Your task to perform on an android device: View the shopping cart on newegg.com. Add lenovo thinkpad to the cart on newegg.com Image 0: 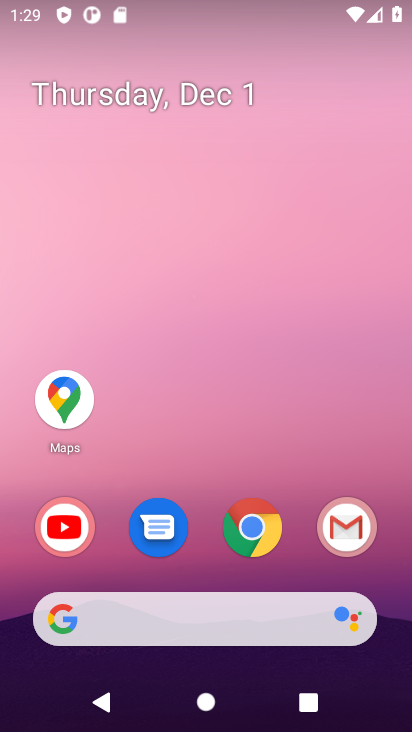
Step 0: click (253, 531)
Your task to perform on an android device: View the shopping cart on newegg.com. Add lenovo thinkpad to the cart on newegg.com Image 1: 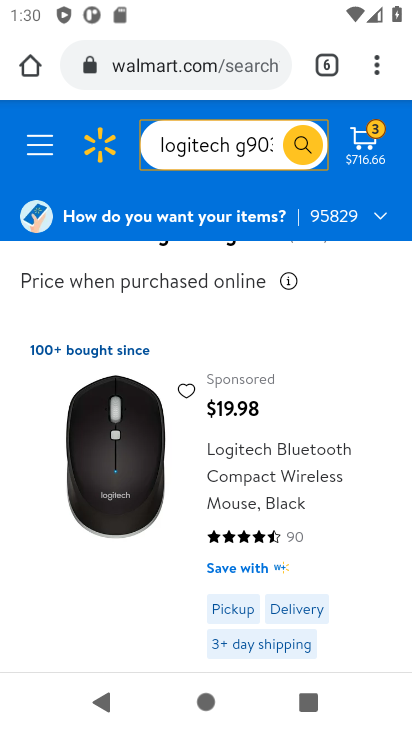
Step 1: click (184, 69)
Your task to perform on an android device: View the shopping cart on newegg.com. Add lenovo thinkpad to the cart on newegg.com Image 2: 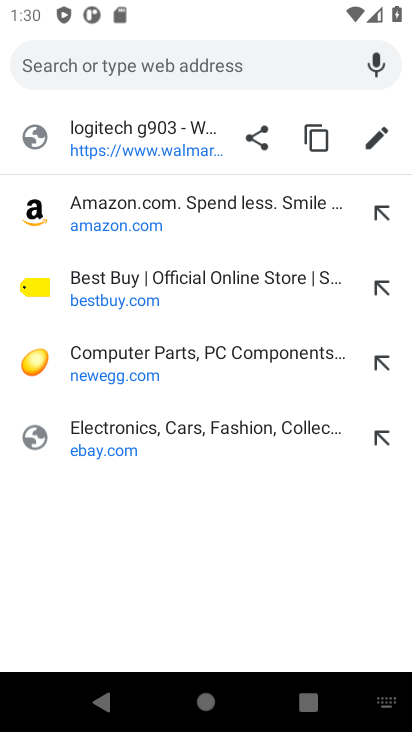
Step 2: click (102, 366)
Your task to perform on an android device: View the shopping cart on newegg.com. Add lenovo thinkpad to the cart on newegg.com Image 3: 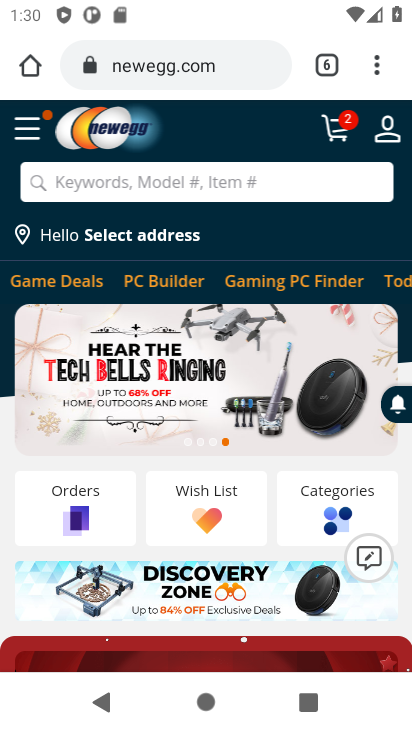
Step 3: click (339, 128)
Your task to perform on an android device: View the shopping cart on newegg.com. Add lenovo thinkpad to the cart on newegg.com Image 4: 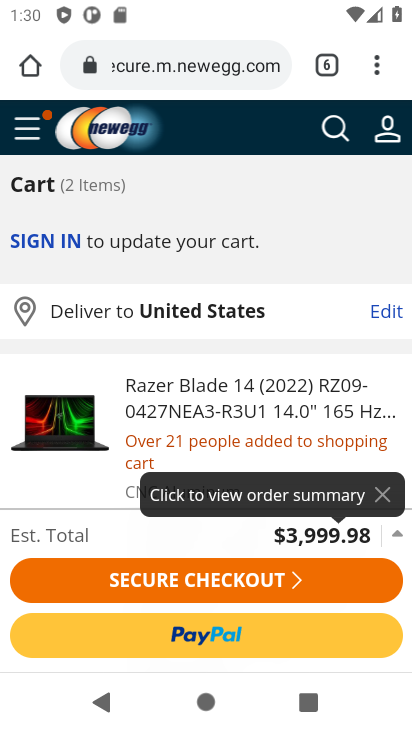
Step 4: drag from (266, 337) to (273, 189)
Your task to perform on an android device: View the shopping cart on newegg.com. Add lenovo thinkpad to the cart on newegg.com Image 5: 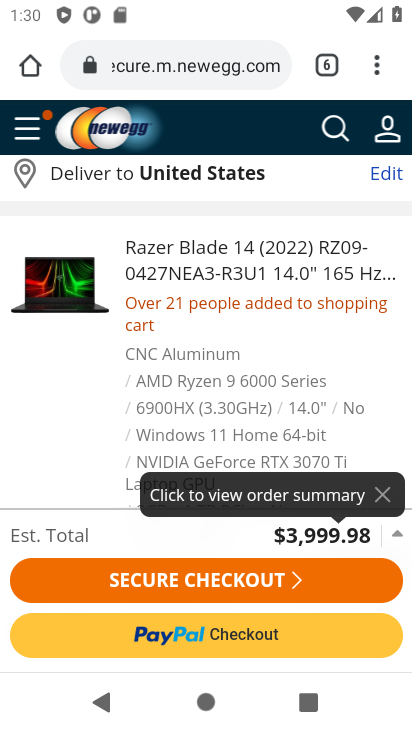
Step 5: click (337, 133)
Your task to perform on an android device: View the shopping cart on newegg.com. Add lenovo thinkpad to the cart on newegg.com Image 6: 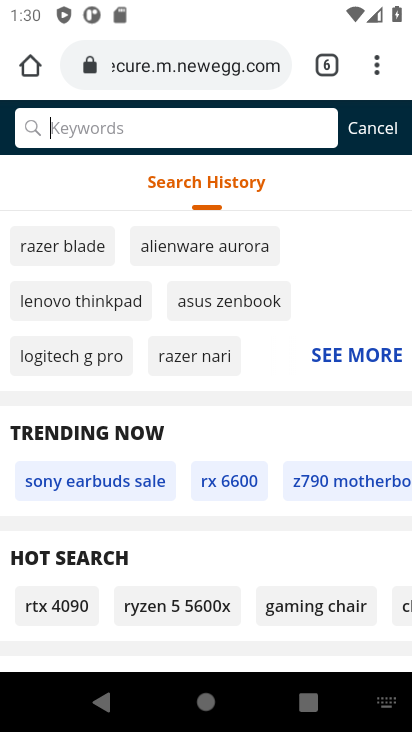
Step 6: type "lenovo thinkpad "
Your task to perform on an android device: View the shopping cart on newegg.com. Add lenovo thinkpad to the cart on newegg.com Image 7: 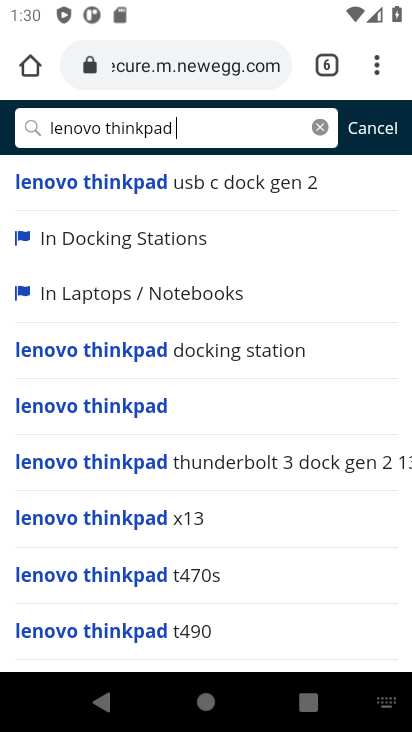
Step 7: click (124, 405)
Your task to perform on an android device: View the shopping cart on newegg.com. Add lenovo thinkpad to the cart on newegg.com Image 8: 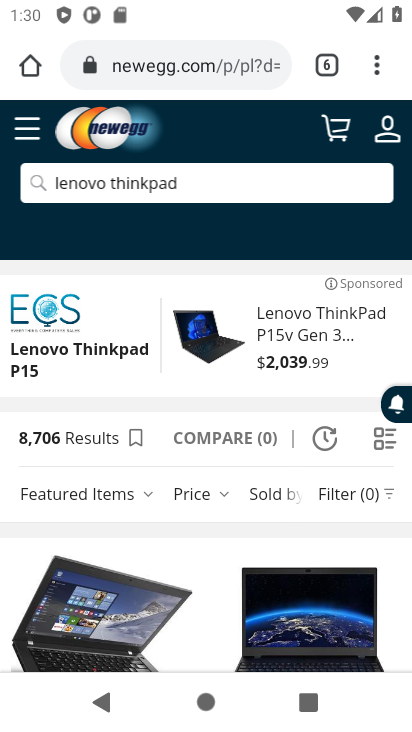
Step 8: drag from (141, 519) to (132, 208)
Your task to perform on an android device: View the shopping cart on newegg.com. Add lenovo thinkpad to the cart on newegg.com Image 9: 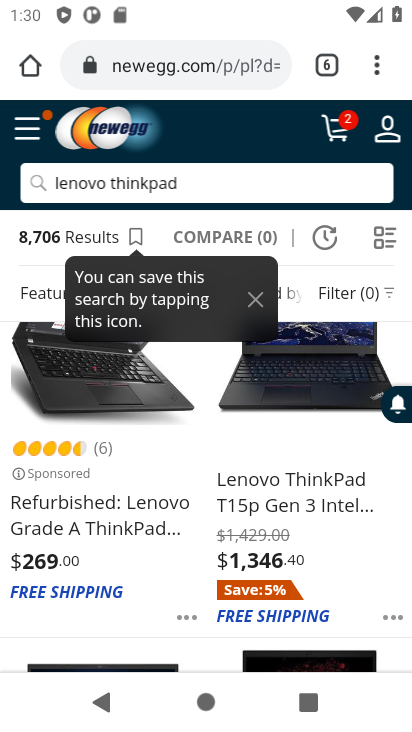
Step 9: click (82, 372)
Your task to perform on an android device: View the shopping cart on newegg.com. Add lenovo thinkpad to the cart on newegg.com Image 10: 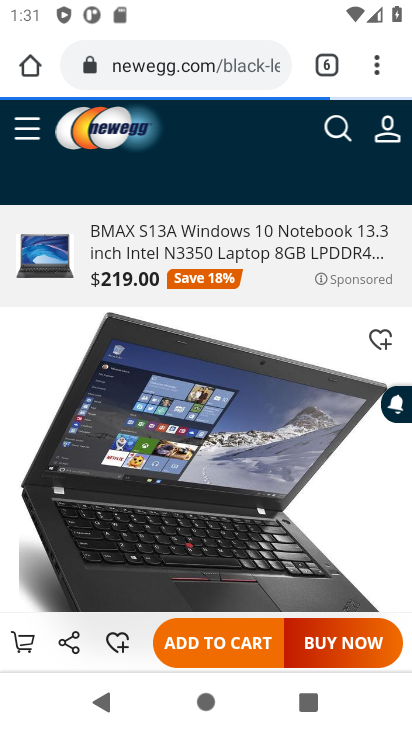
Step 10: drag from (75, 506) to (102, 326)
Your task to perform on an android device: View the shopping cart on newegg.com. Add lenovo thinkpad to the cart on newegg.com Image 11: 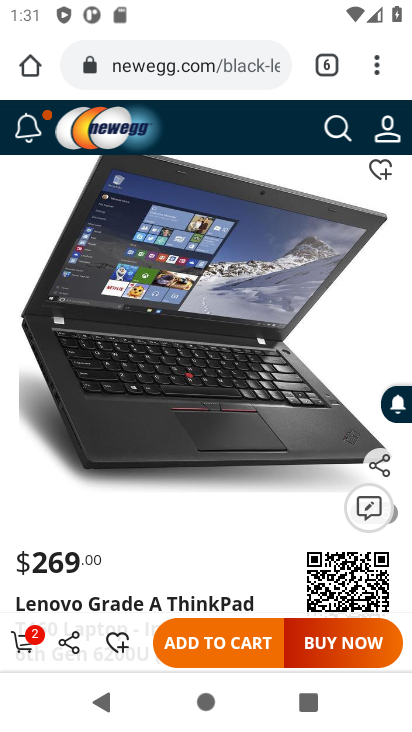
Step 11: click (208, 638)
Your task to perform on an android device: View the shopping cart on newegg.com. Add lenovo thinkpad to the cart on newegg.com Image 12: 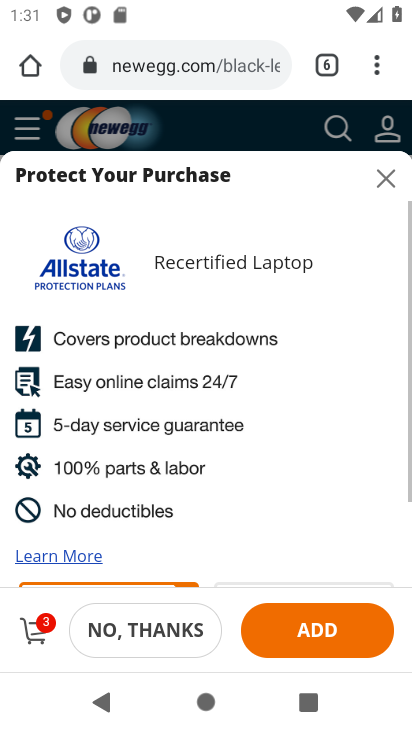
Step 12: task complete